Your task to perform on an android device: Go to Android settings Image 0: 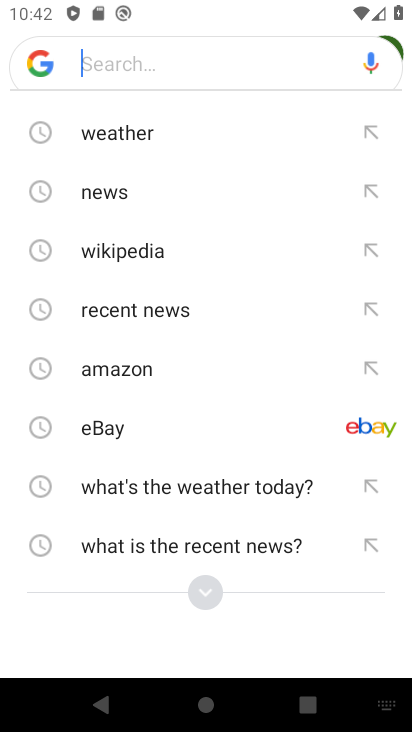
Step 0: press home button
Your task to perform on an android device: Go to Android settings Image 1: 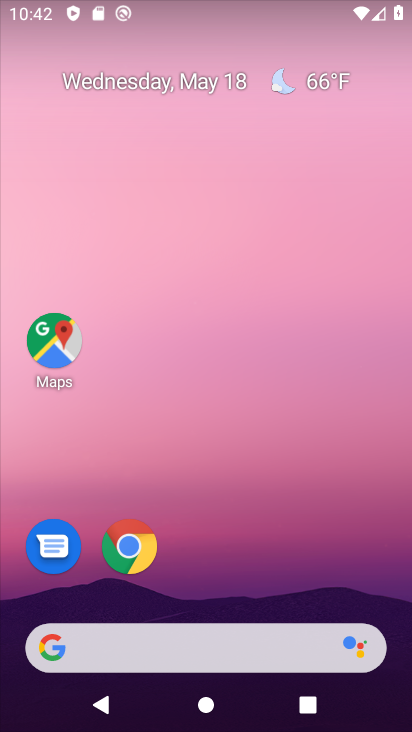
Step 1: drag from (234, 726) to (222, 231)
Your task to perform on an android device: Go to Android settings Image 2: 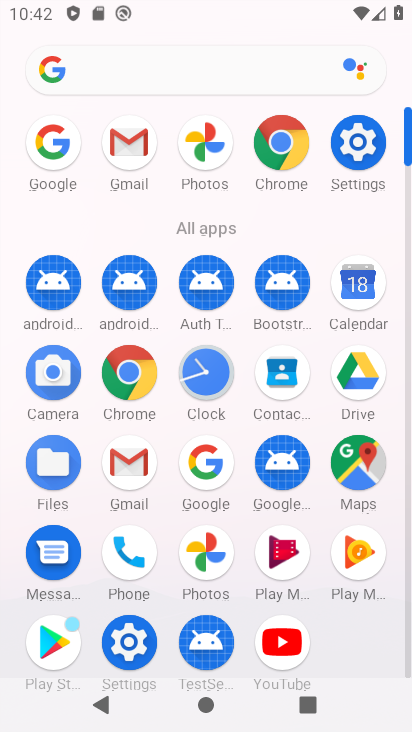
Step 2: click (357, 139)
Your task to perform on an android device: Go to Android settings Image 3: 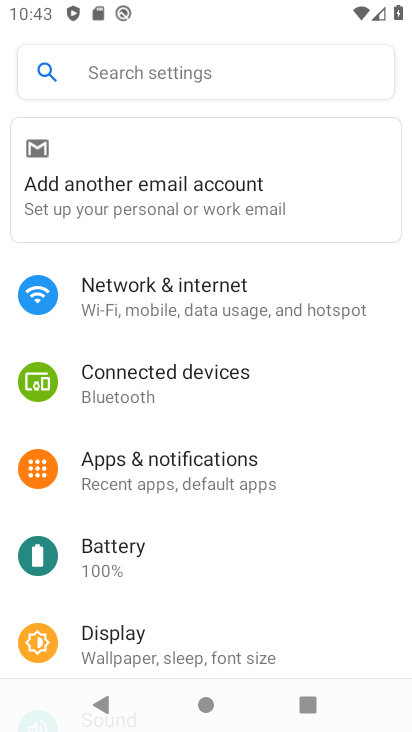
Step 3: task complete